Your task to perform on an android device: remove spam from my inbox in the gmail app Image 0: 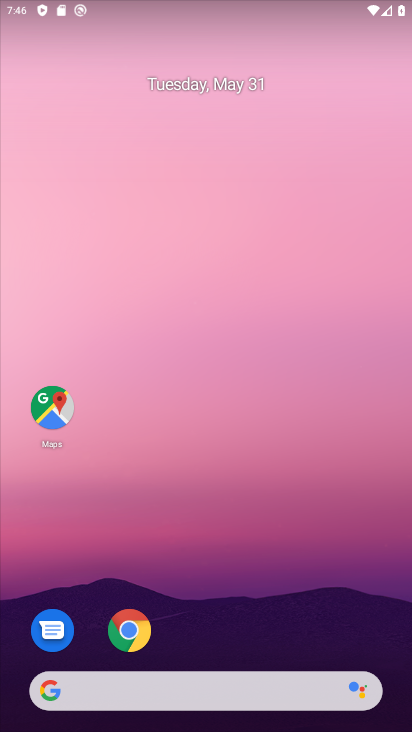
Step 0: press home button
Your task to perform on an android device: remove spam from my inbox in the gmail app Image 1: 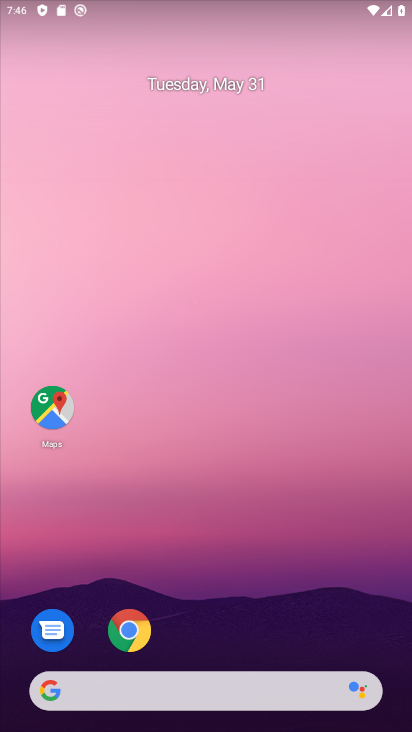
Step 1: drag from (228, 598) to (193, 82)
Your task to perform on an android device: remove spam from my inbox in the gmail app Image 2: 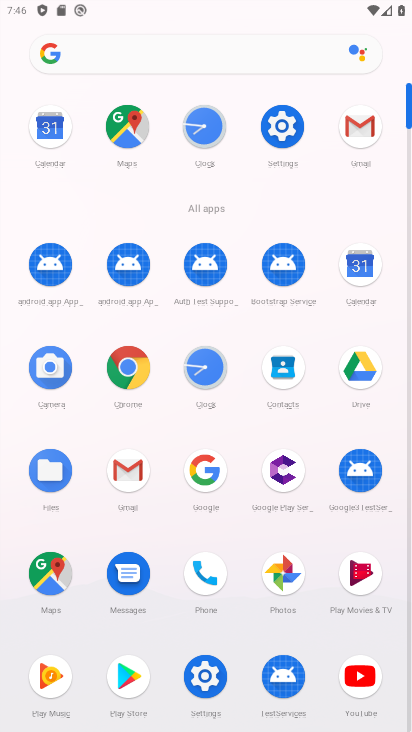
Step 2: click (124, 473)
Your task to perform on an android device: remove spam from my inbox in the gmail app Image 3: 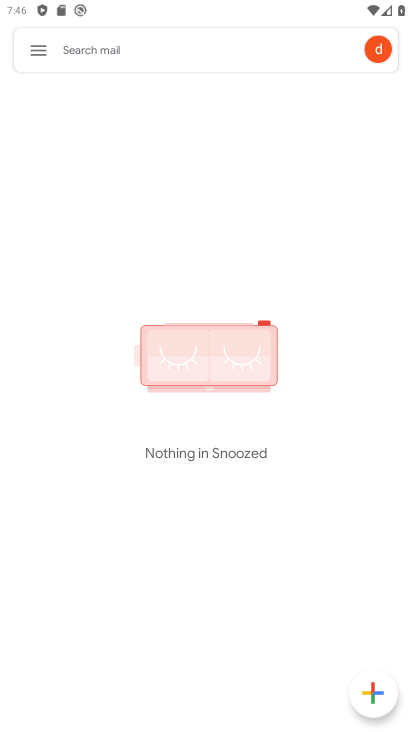
Step 3: click (45, 49)
Your task to perform on an android device: remove spam from my inbox in the gmail app Image 4: 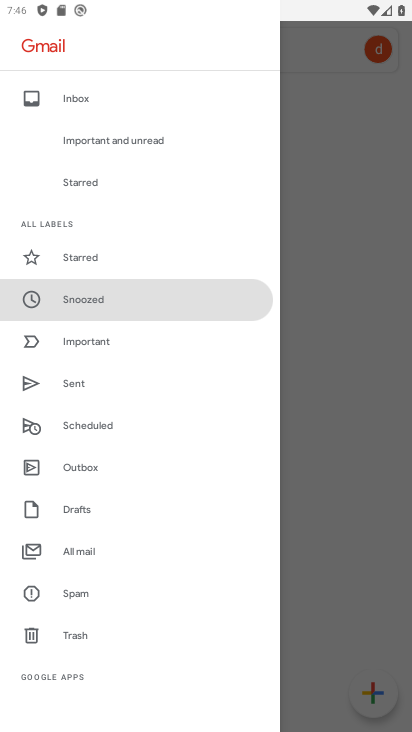
Step 4: click (82, 595)
Your task to perform on an android device: remove spam from my inbox in the gmail app Image 5: 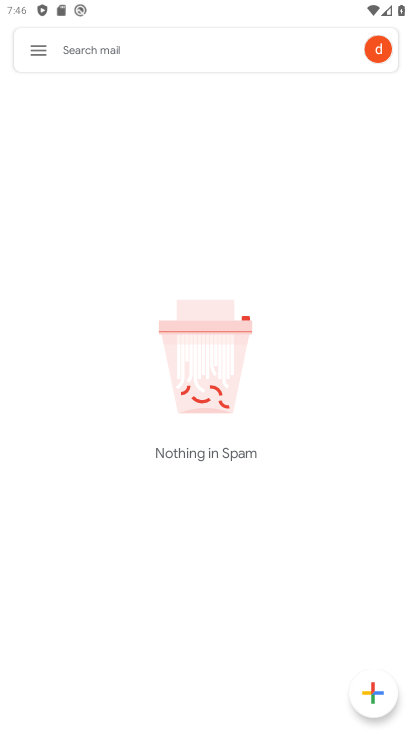
Step 5: task complete